Your task to perform on an android device: What's a good restaurant in Chicago? Image 0: 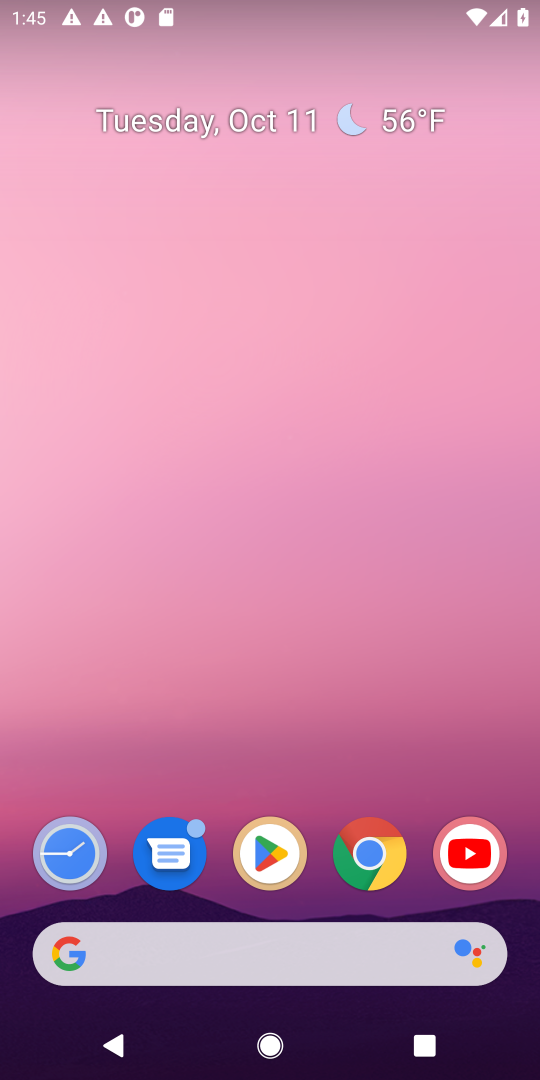
Step 0: drag from (297, 586) to (297, 167)
Your task to perform on an android device: What's a good restaurant in Chicago? Image 1: 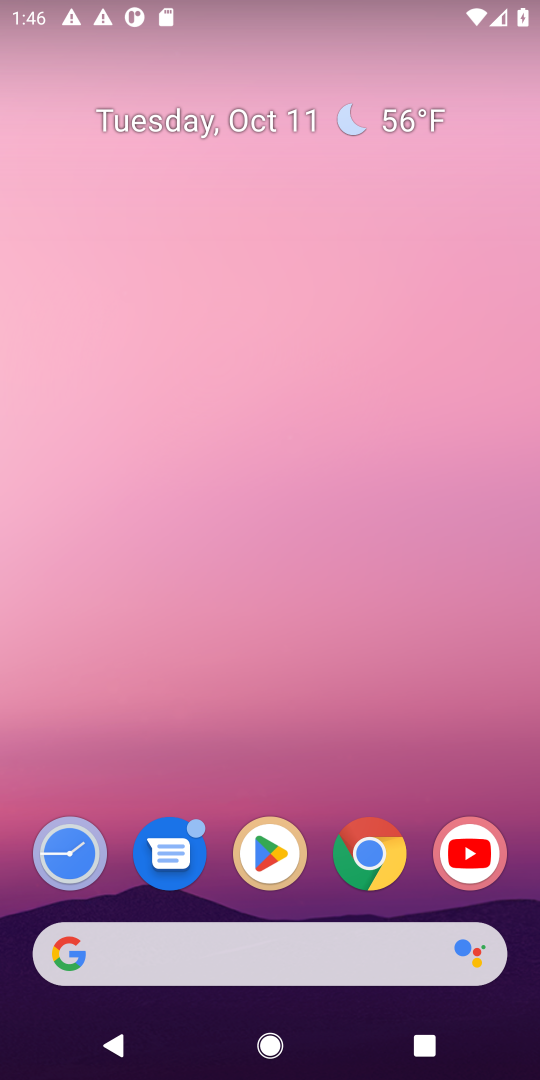
Step 1: drag from (224, 940) to (233, 177)
Your task to perform on an android device: What's a good restaurant in Chicago? Image 2: 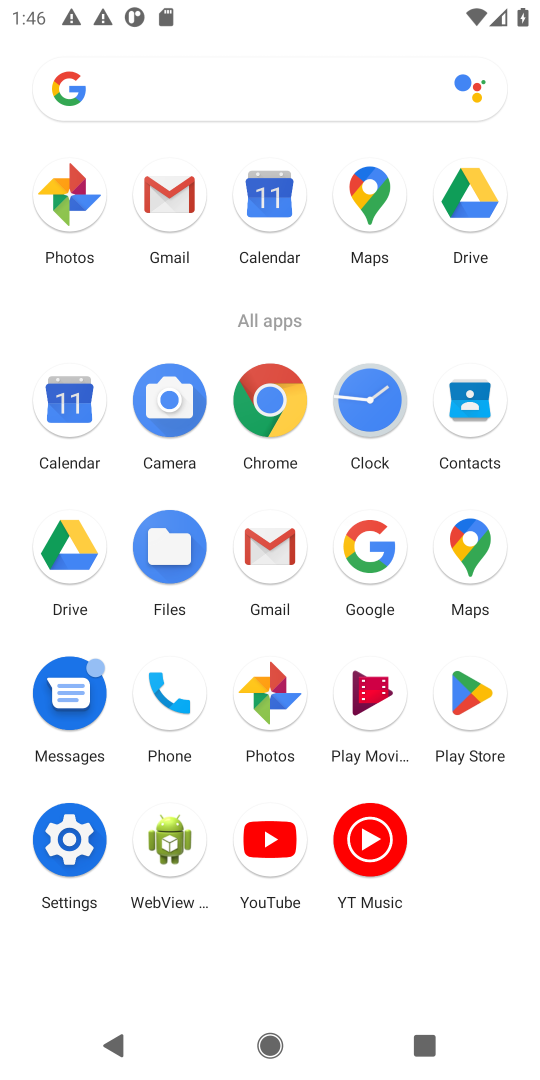
Step 2: click (364, 547)
Your task to perform on an android device: What's a good restaurant in Chicago? Image 3: 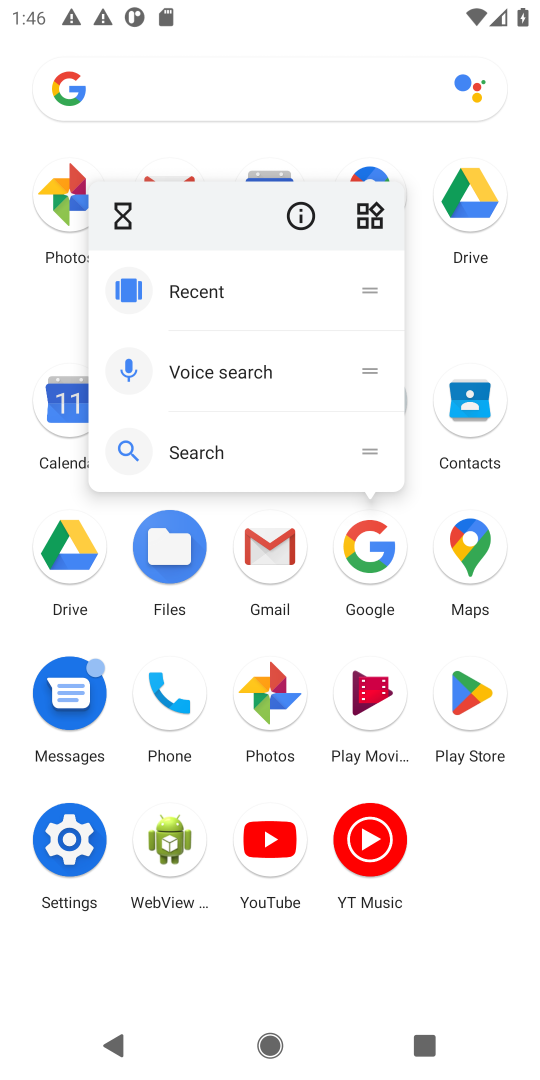
Step 3: click (364, 551)
Your task to perform on an android device: What's a good restaurant in Chicago? Image 4: 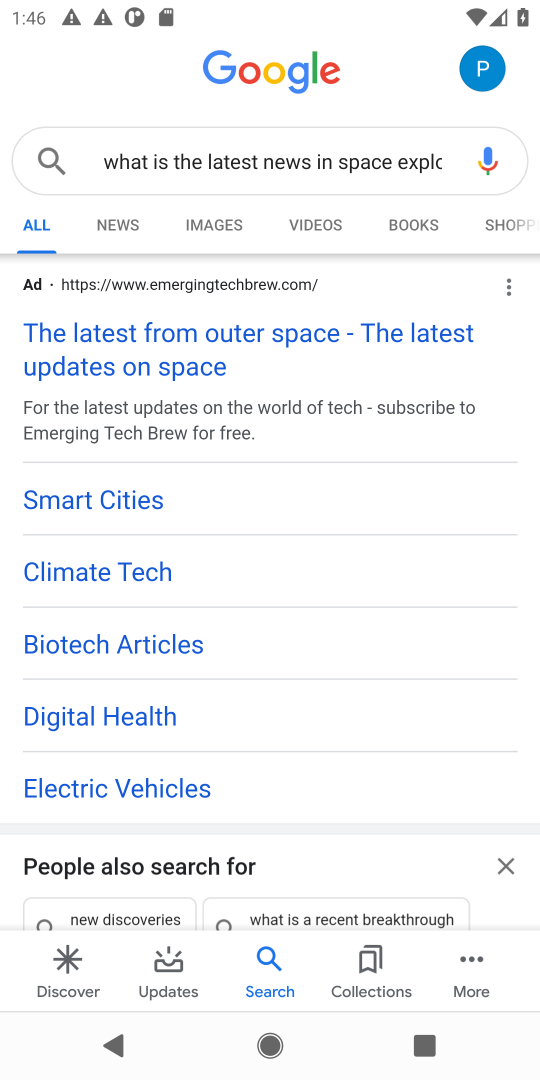
Step 4: click (228, 154)
Your task to perform on an android device: What's a good restaurant in Chicago? Image 5: 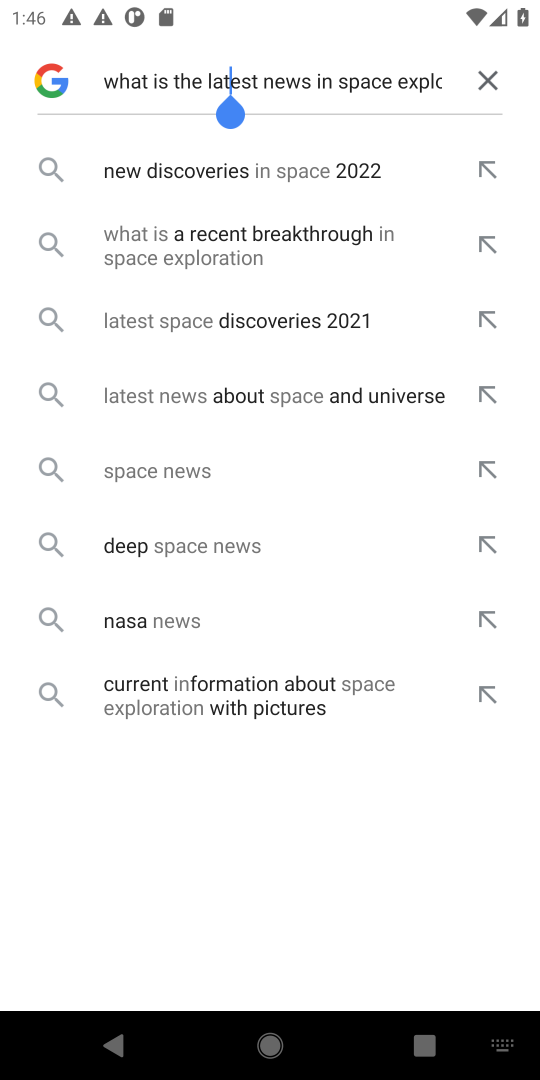
Step 5: click (486, 74)
Your task to perform on an android device: What's a good restaurant in Chicago? Image 6: 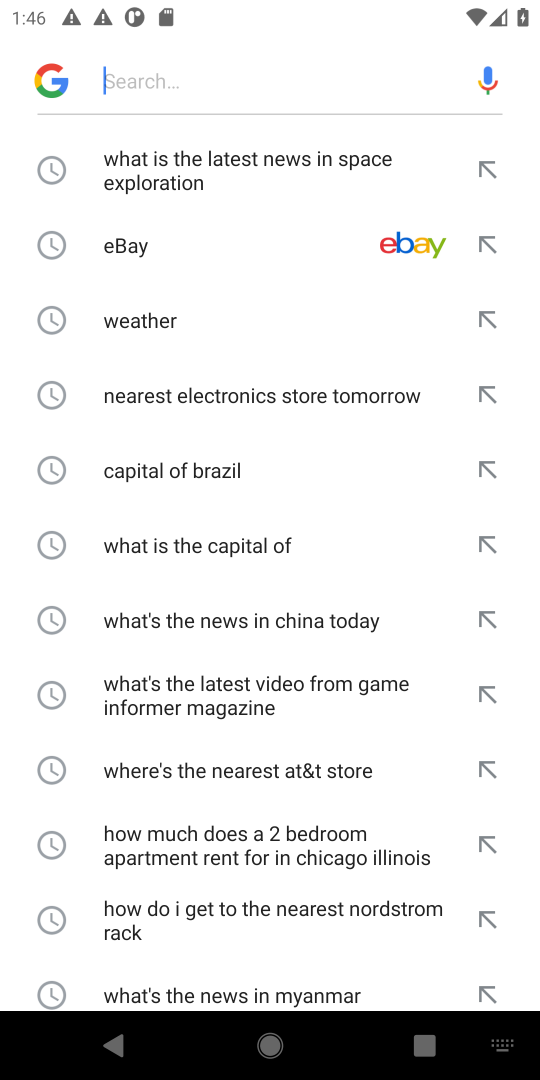
Step 6: type "What's a good restaurant in Chicago?"
Your task to perform on an android device: What's a good restaurant in Chicago? Image 7: 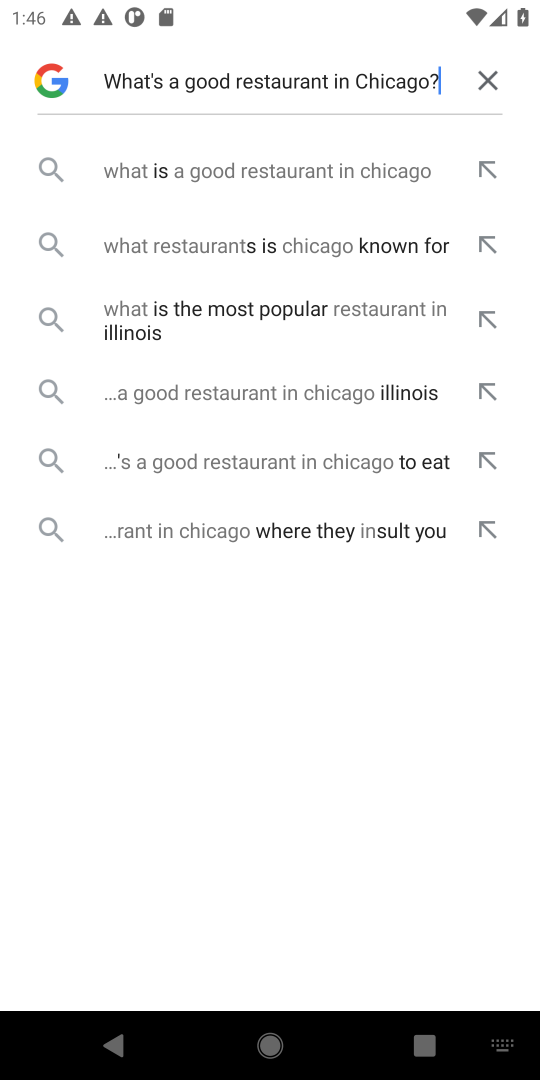
Step 7: click (193, 183)
Your task to perform on an android device: What's a good restaurant in Chicago? Image 8: 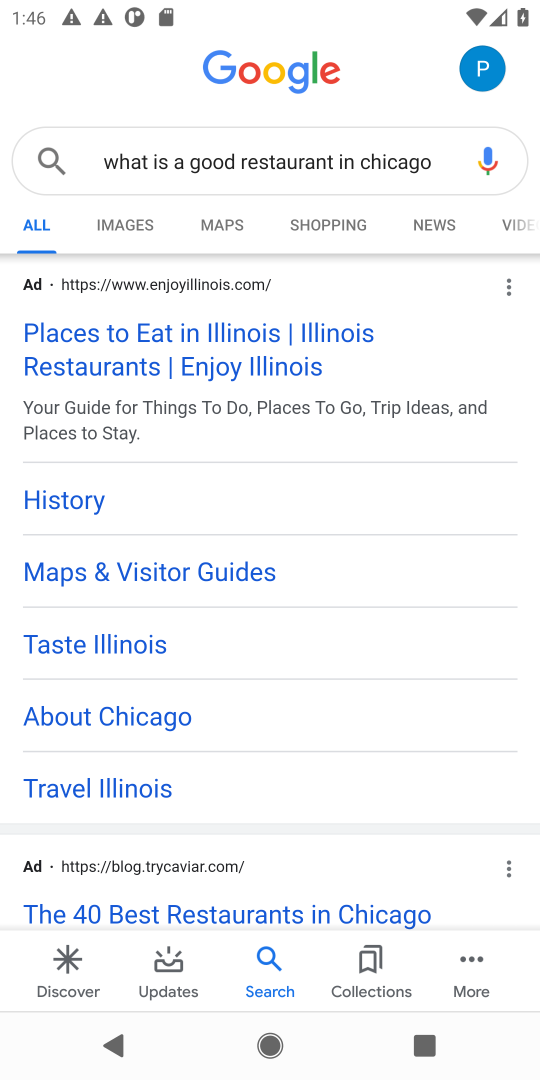
Step 8: click (183, 336)
Your task to perform on an android device: What's a good restaurant in Chicago? Image 9: 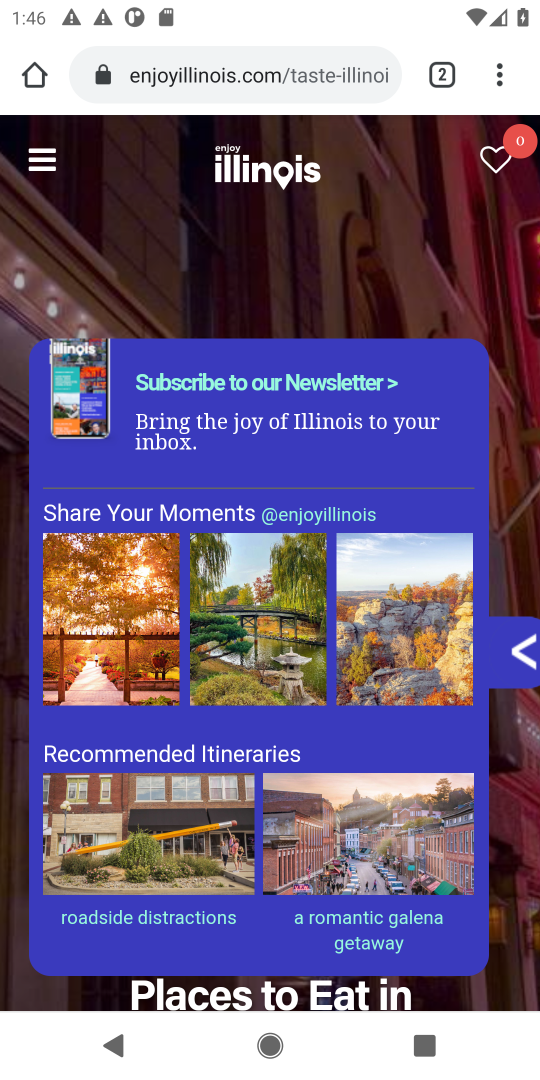
Step 9: task complete